Your task to perform on an android device: add a contact Image 0: 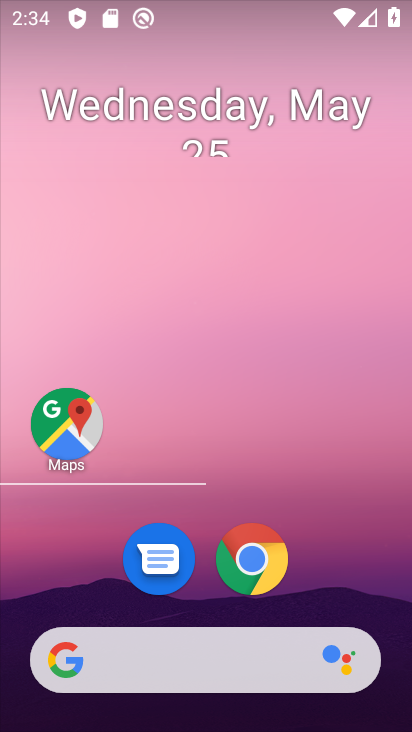
Step 0: press home button
Your task to perform on an android device: add a contact Image 1: 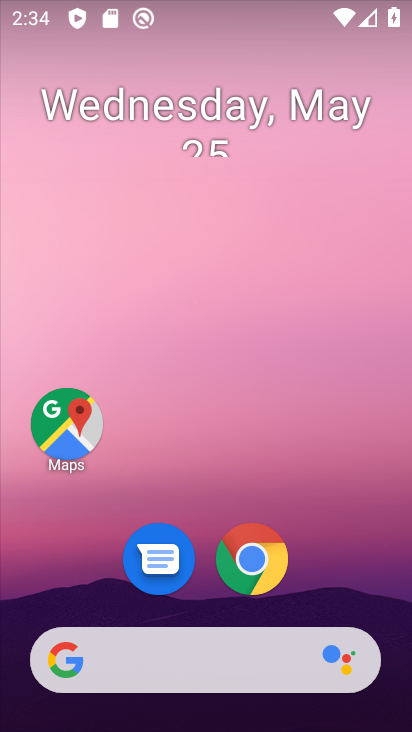
Step 1: drag from (213, 604) to (264, 66)
Your task to perform on an android device: add a contact Image 2: 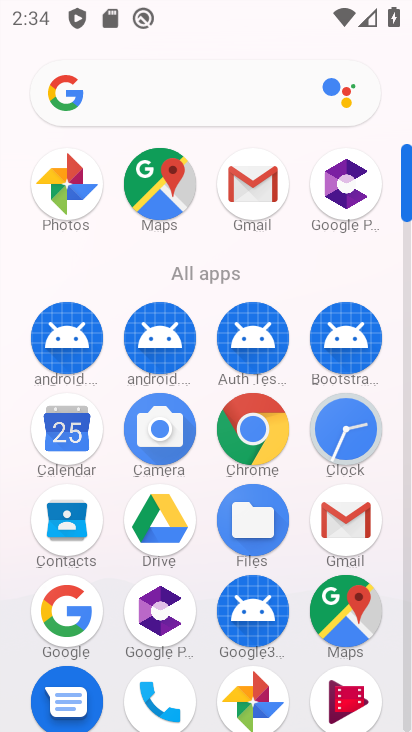
Step 2: click (61, 516)
Your task to perform on an android device: add a contact Image 3: 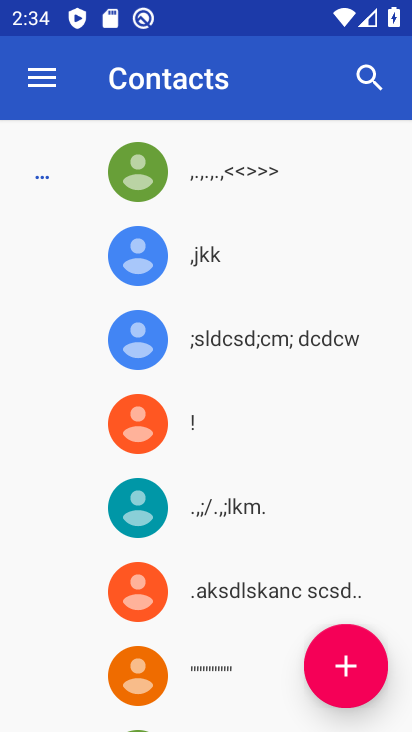
Step 3: click (342, 661)
Your task to perform on an android device: add a contact Image 4: 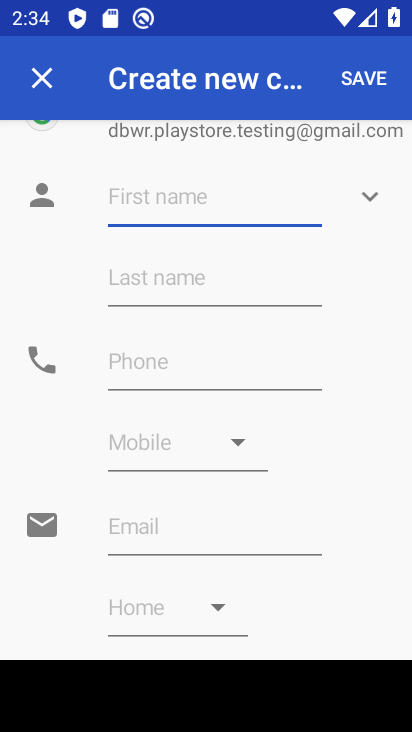
Step 4: type "gvcfdx"
Your task to perform on an android device: add a contact Image 5: 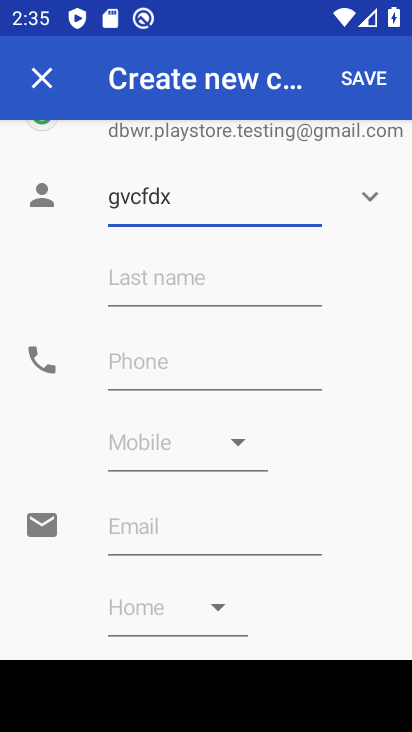
Step 5: click (363, 77)
Your task to perform on an android device: add a contact Image 6: 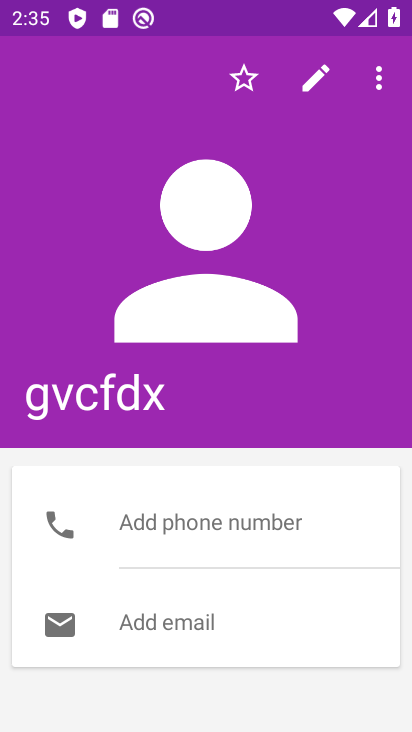
Step 6: task complete